Your task to perform on an android device: Do I have any events today? Image 0: 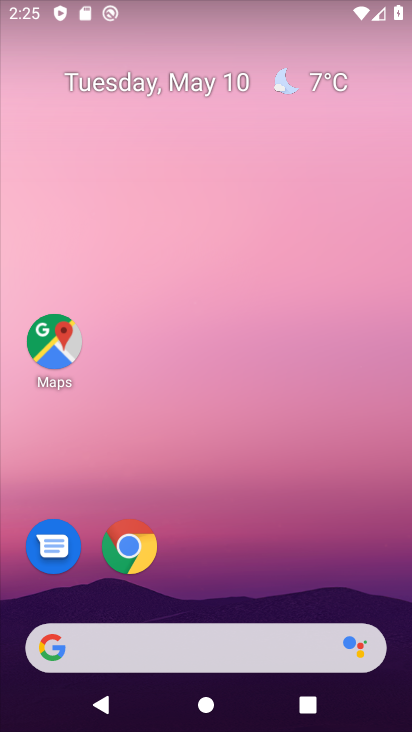
Step 0: drag from (277, 551) to (315, 116)
Your task to perform on an android device: Do I have any events today? Image 1: 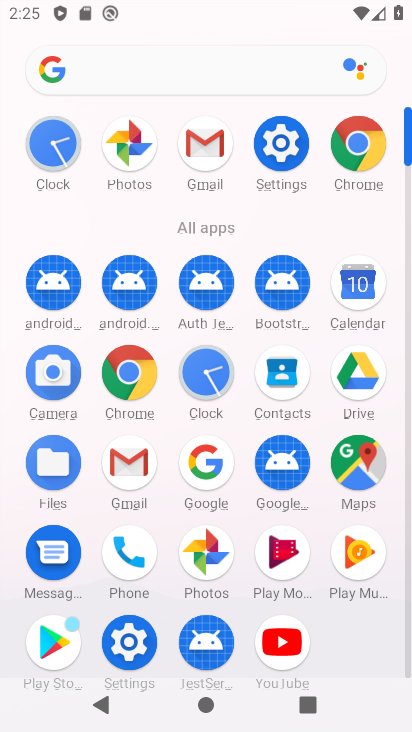
Step 1: click (360, 301)
Your task to perform on an android device: Do I have any events today? Image 2: 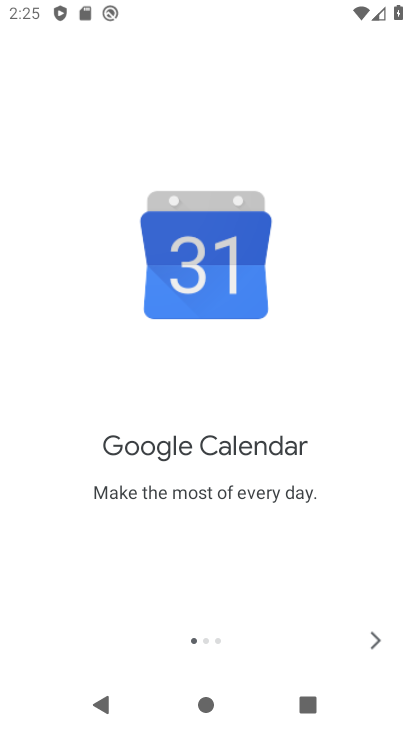
Step 2: click (364, 644)
Your task to perform on an android device: Do I have any events today? Image 3: 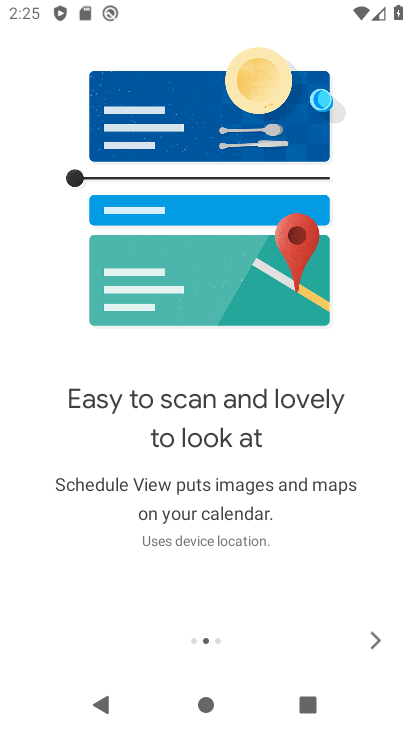
Step 3: click (365, 645)
Your task to perform on an android device: Do I have any events today? Image 4: 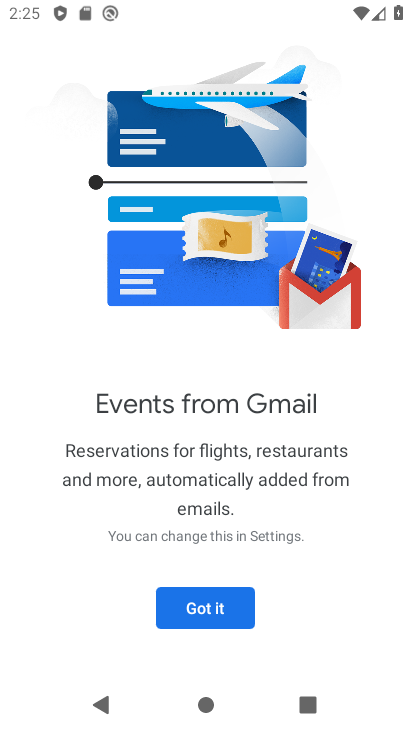
Step 4: click (199, 622)
Your task to perform on an android device: Do I have any events today? Image 5: 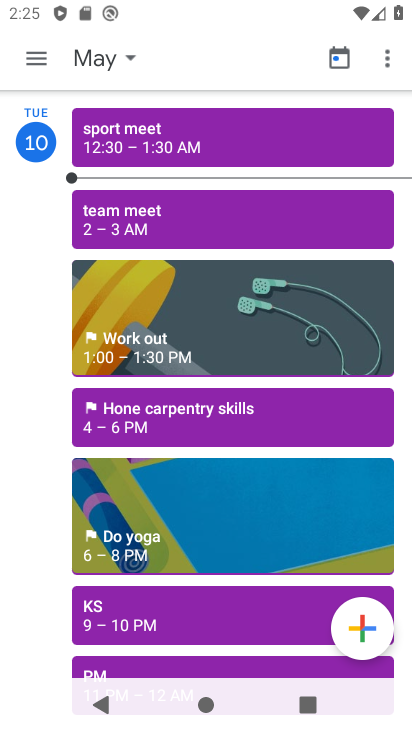
Step 5: click (111, 61)
Your task to perform on an android device: Do I have any events today? Image 6: 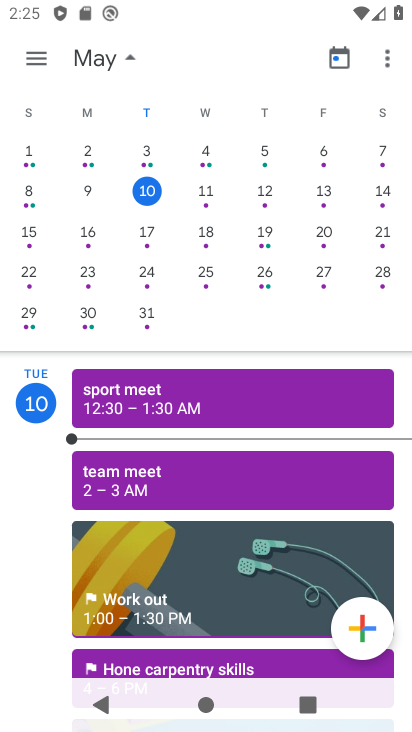
Step 6: click (160, 195)
Your task to perform on an android device: Do I have any events today? Image 7: 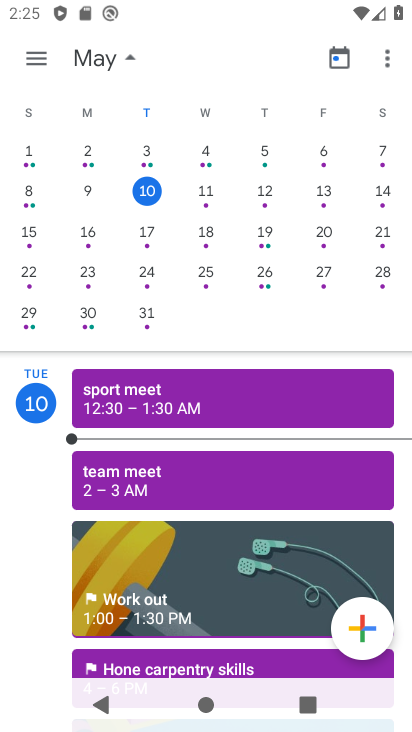
Step 7: task complete